Your task to perform on an android device: Open Chrome and go to the settings page Image 0: 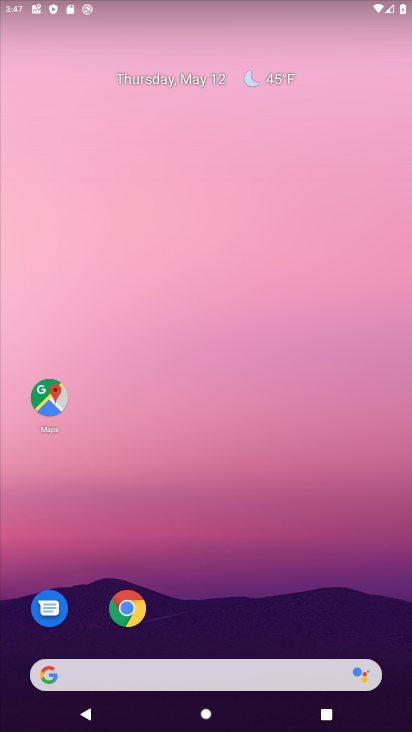
Step 0: click (130, 605)
Your task to perform on an android device: Open Chrome and go to the settings page Image 1: 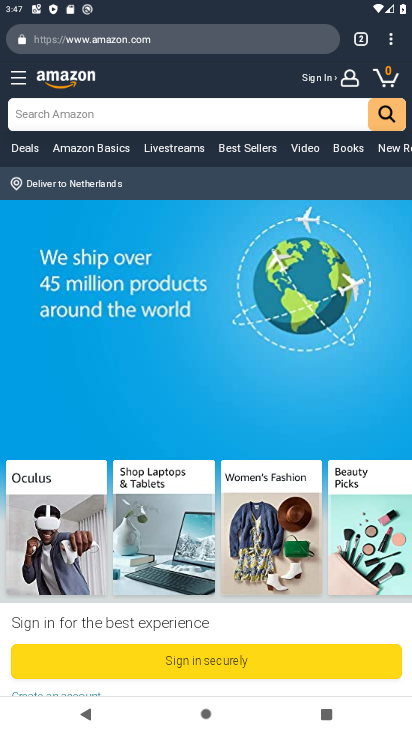
Step 1: click (388, 38)
Your task to perform on an android device: Open Chrome and go to the settings page Image 2: 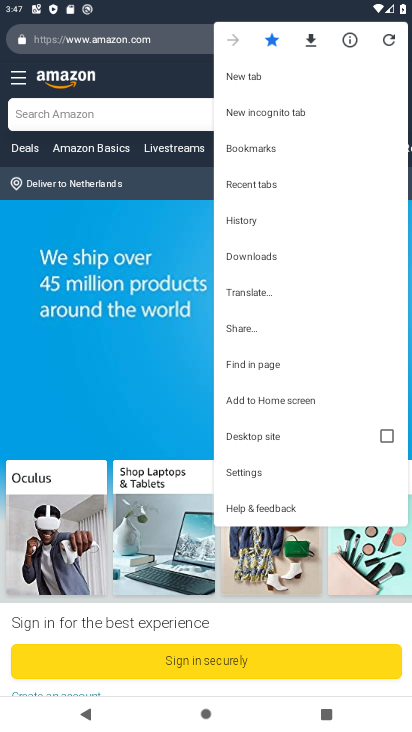
Step 2: click (244, 476)
Your task to perform on an android device: Open Chrome and go to the settings page Image 3: 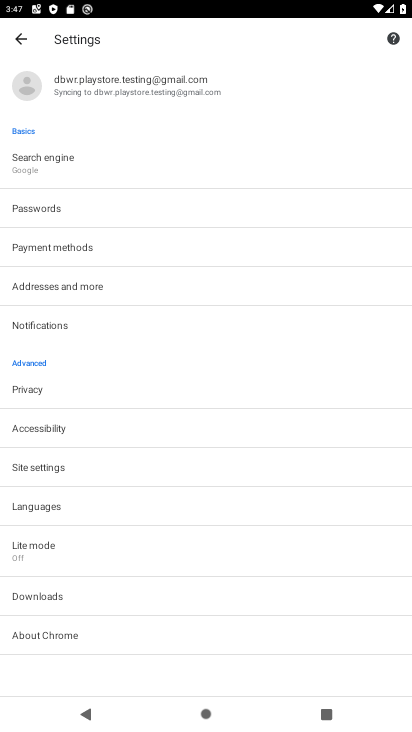
Step 3: task complete